Your task to perform on an android device: turn pop-ups off in chrome Image 0: 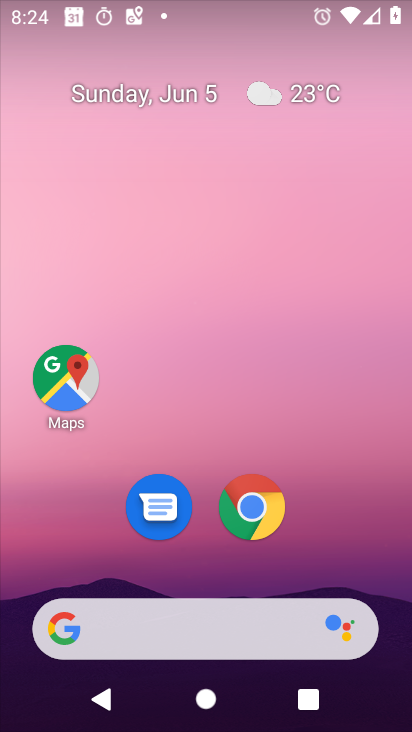
Step 0: press home button
Your task to perform on an android device: turn pop-ups off in chrome Image 1: 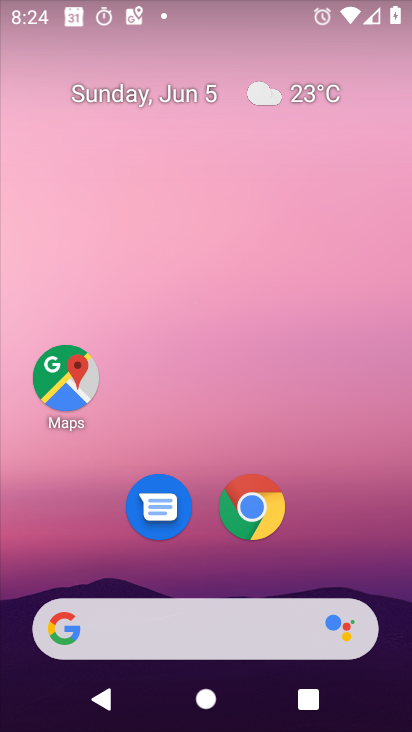
Step 1: drag from (243, 672) to (236, 25)
Your task to perform on an android device: turn pop-ups off in chrome Image 2: 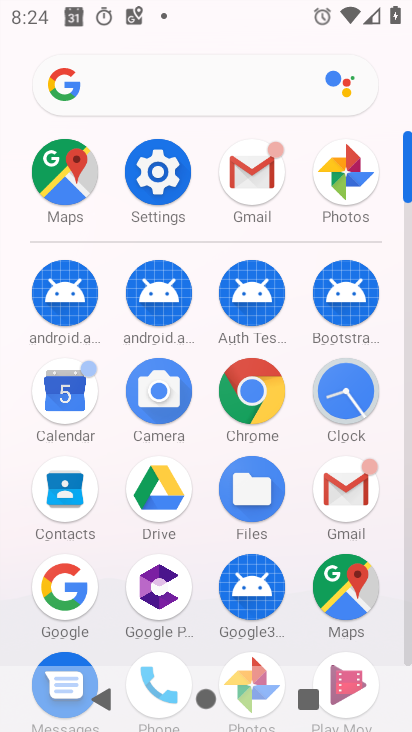
Step 2: click (231, 417)
Your task to perform on an android device: turn pop-ups off in chrome Image 3: 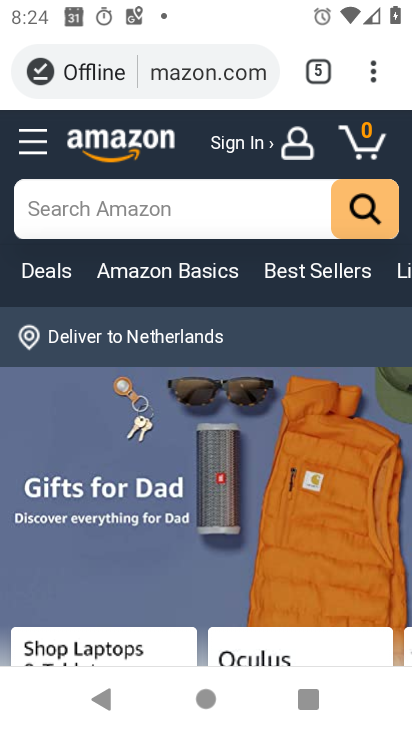
Step 3: click (367, 74)
Your task to perform on an android device: turn pop-ups off in chrome Image 4: 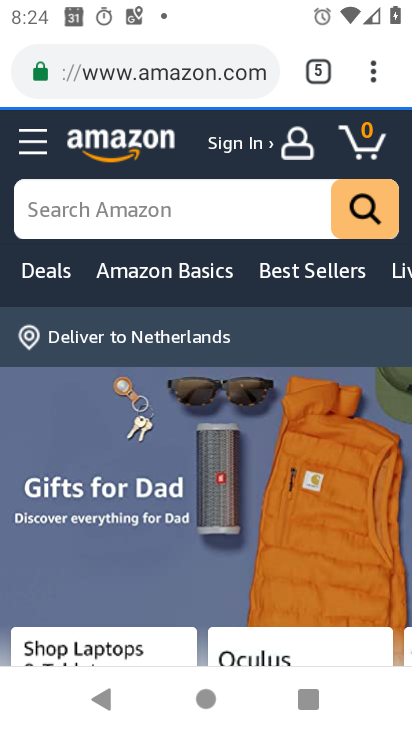
Step 4: click (372, 84)
Your task to perform on an android device: turn pop-ups off in chrome Image 5: 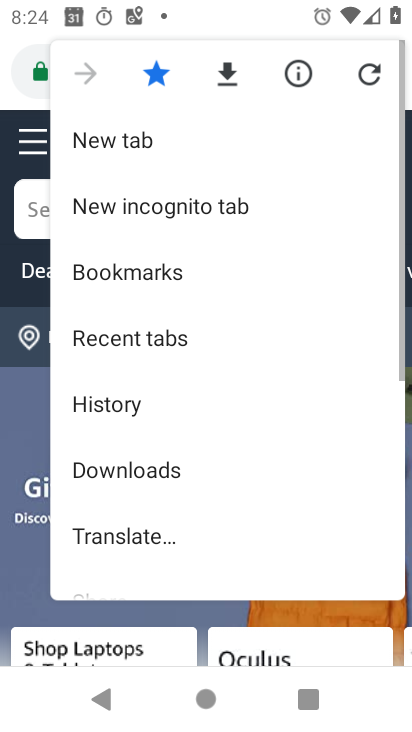
Step 5: drag from (204, 502) to (217, 322)
Your task to perform on an android device: turn pop-ups off in chrome Image 6: 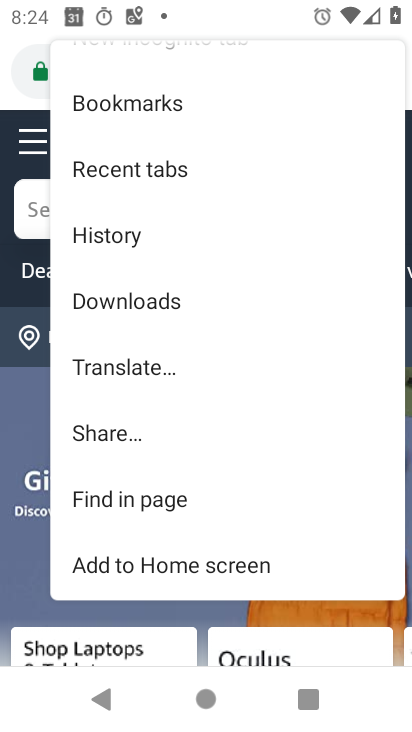
Step 6: drag from (140, 545) to (164, 386)
Your task to perform on an android device: turn pop-ups off in chrome Image 7: 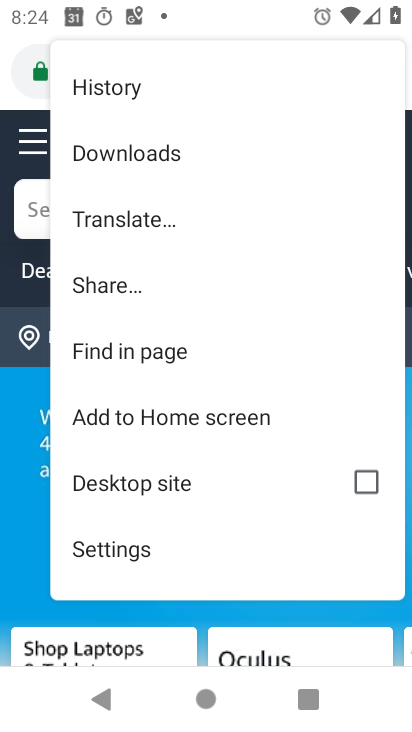
Step 7: click (125, 548)
Your task to perform on an android device: turn pop-ups off in chrome Image 8: 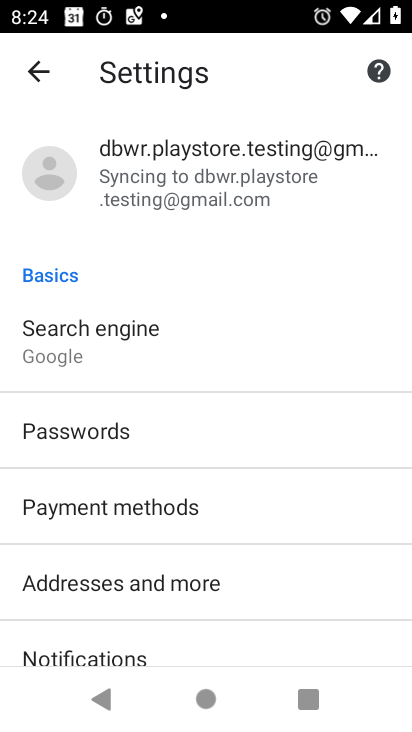
Step 8: drag from (124, 567) to (174, 335)
Your task to perform on an android device: turn pop-ups off in chrome Image 9: 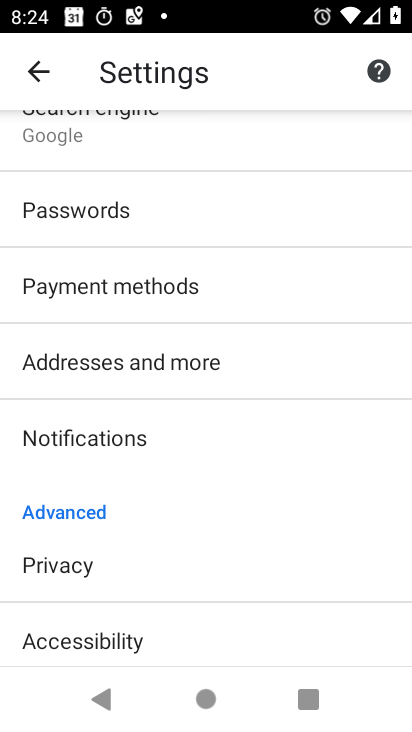
Step 9: drag from (75, 608) to (148, 359)
Your task to perform on an android device: turn pop-ups off in chrome Image 10: 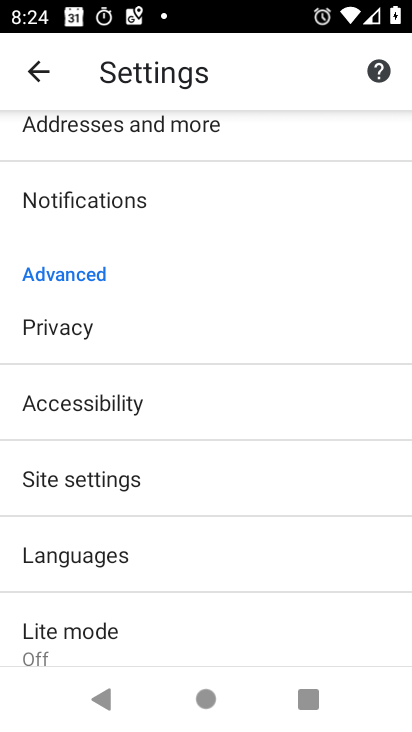
Step 10: click (124, 488)
Your task to perform on an android device: turn pop-ups off in chrome Image 11: 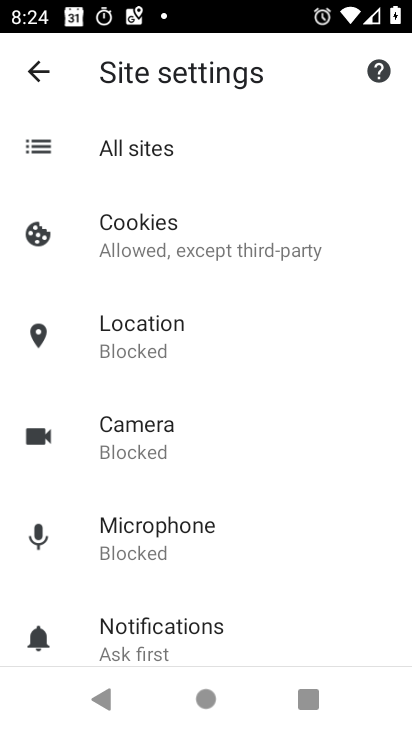
Step 11: drag from (180, 565) to (214, 320)
Your task to perform on an android device: turn pop-ups off in chrome Image 12: 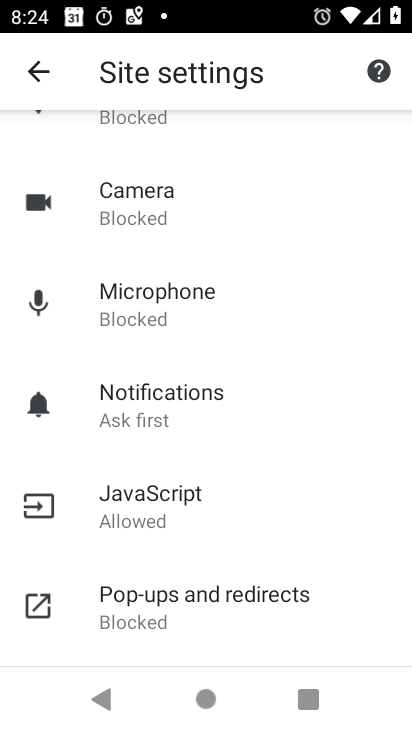
Step 12: click (195, 608)
Your task to perform on an android device: turn pop-ups off in chrome Image 13: 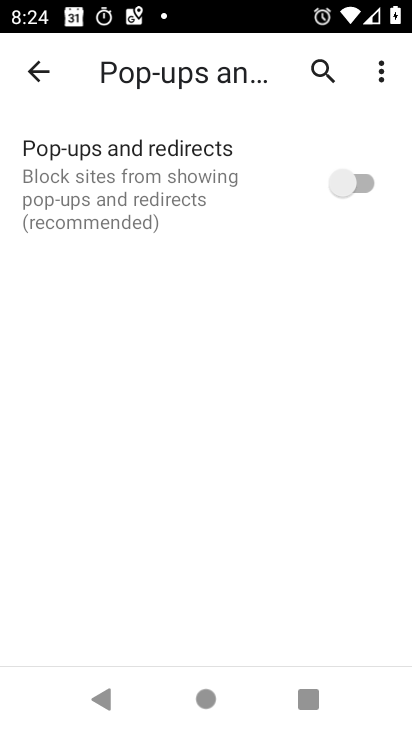
Step 13: click (354, 180)
Your task to perform on an android device: turn pop-ups off in chrome Image 14: 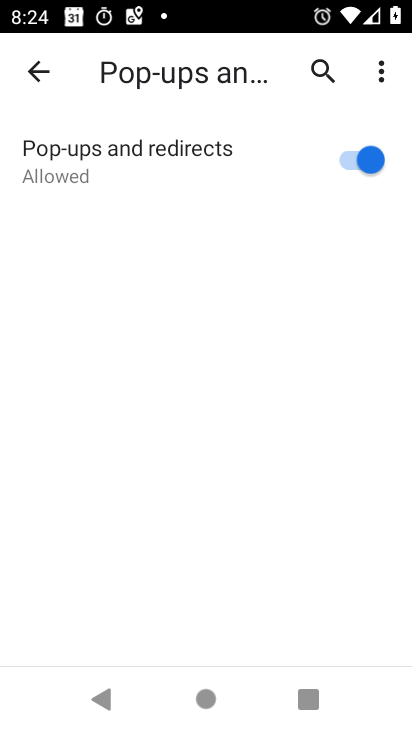
Step 14: click (354, 180)
Your task to perform on an android device: turn pop-ups off in chrome Image 15: 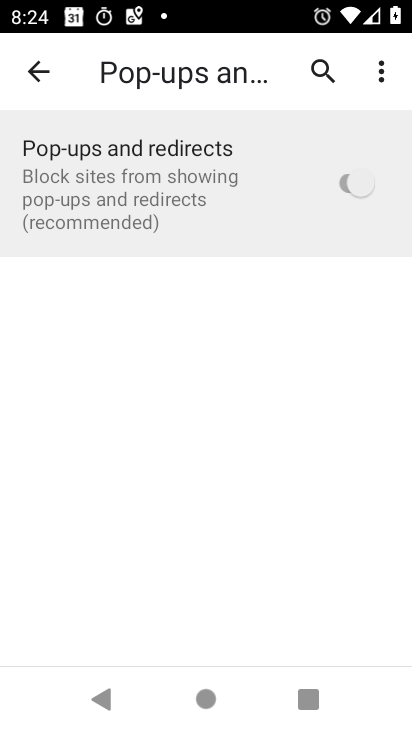
Step 15: click (337, 469)
Your task to perform on an android device: turn pop-ups off in chrome Image 16: 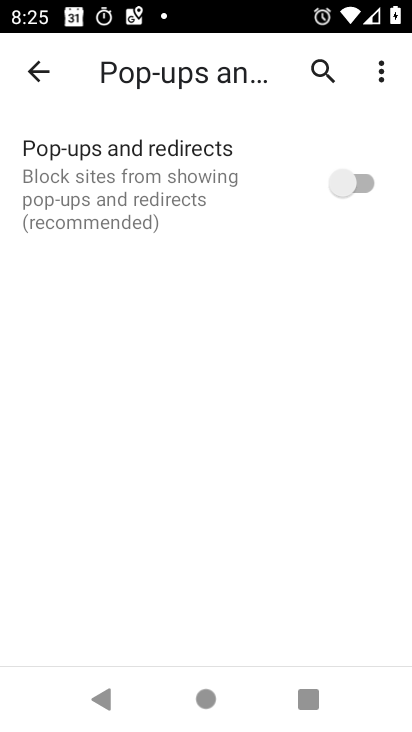
Step 16: task complete